Your task to perform on an android device: Check the weather Image 0: 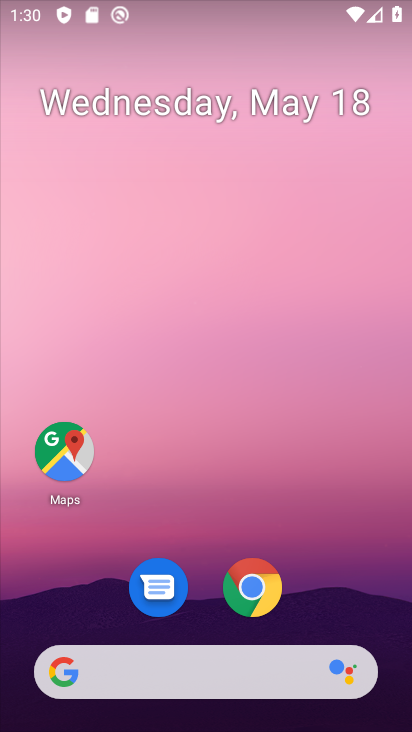
Step 0: drag from (7, 362) to (403, 255)
Your task to perform on an android device: Check the weather Image 1: 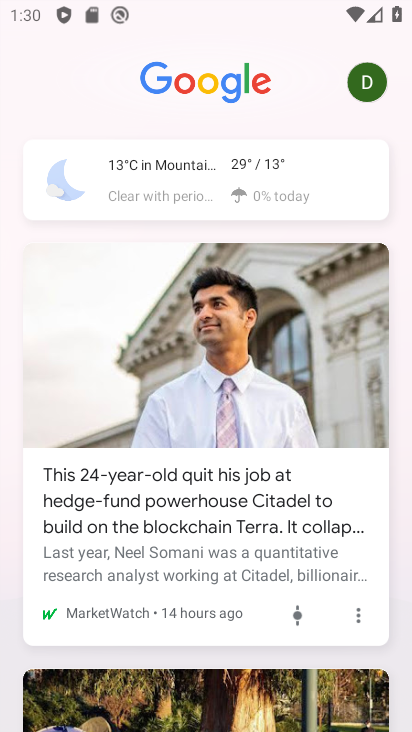
Step 1: click (242, 219)
Your task to perform on an android device: Check the weather Image 2: 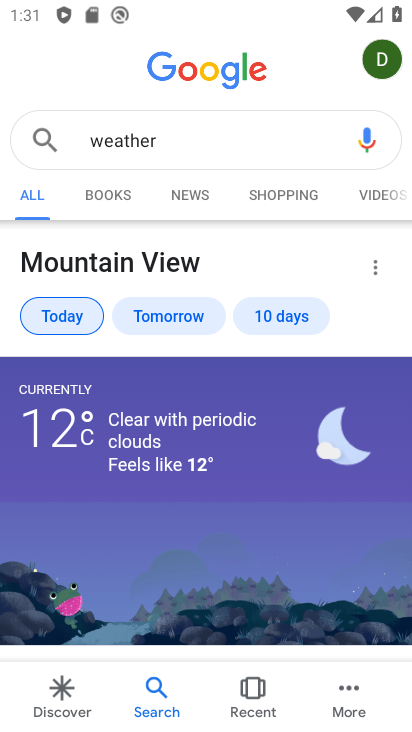
Step 2: task complete